Your task to perform on an android device: Open Chrome and go to settings Image 0: 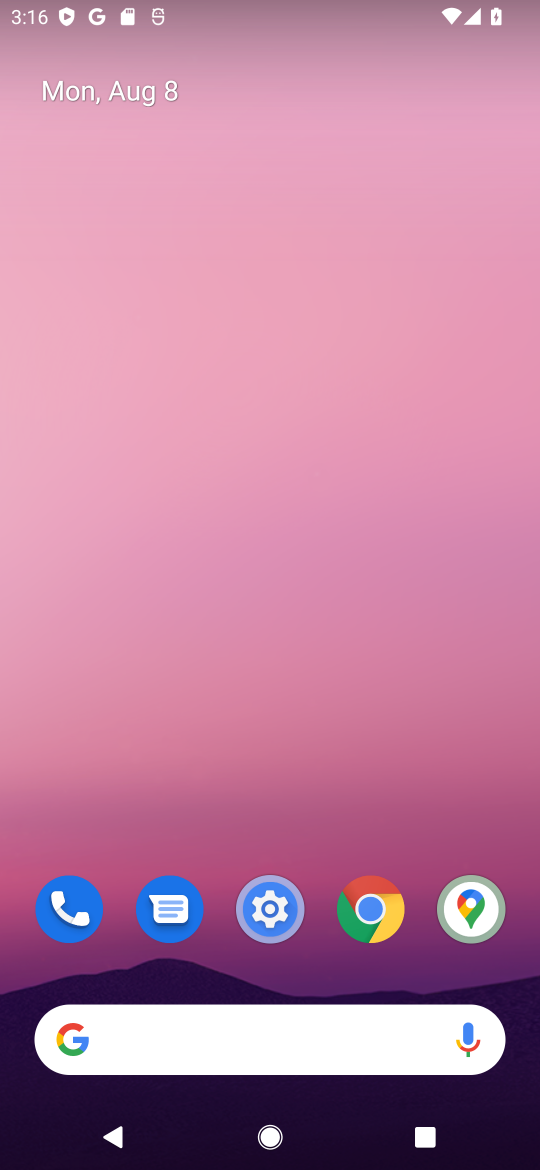
Step 0: click (369, 901)
Your task to perform on an android device: Open Chrome and go to settings Image 1: 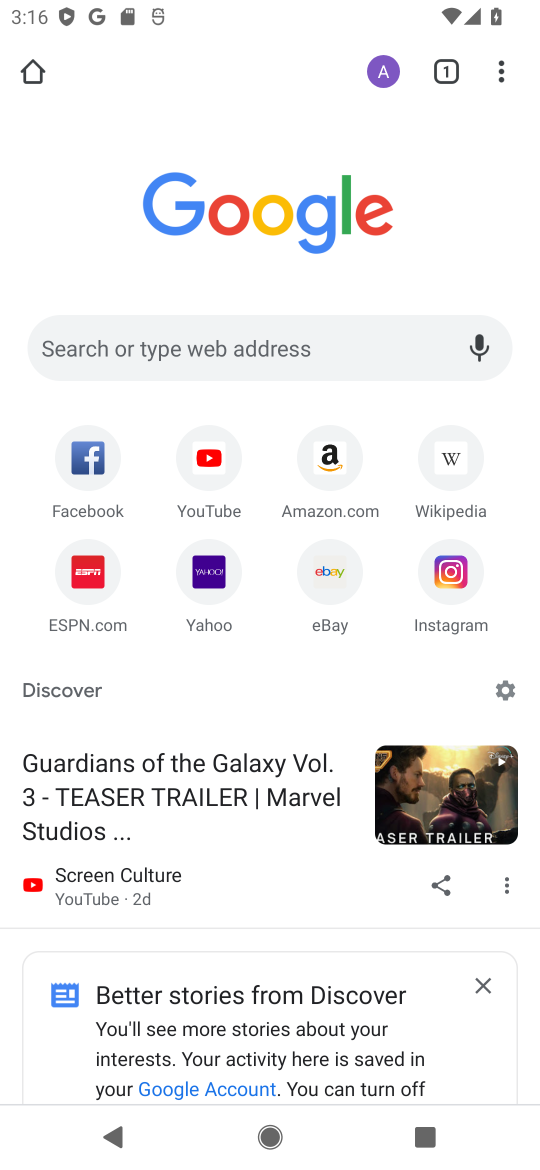
Step 1: click (494, 67)
Your task to perform on an android device: Open Chrome and go to settings Image 2: 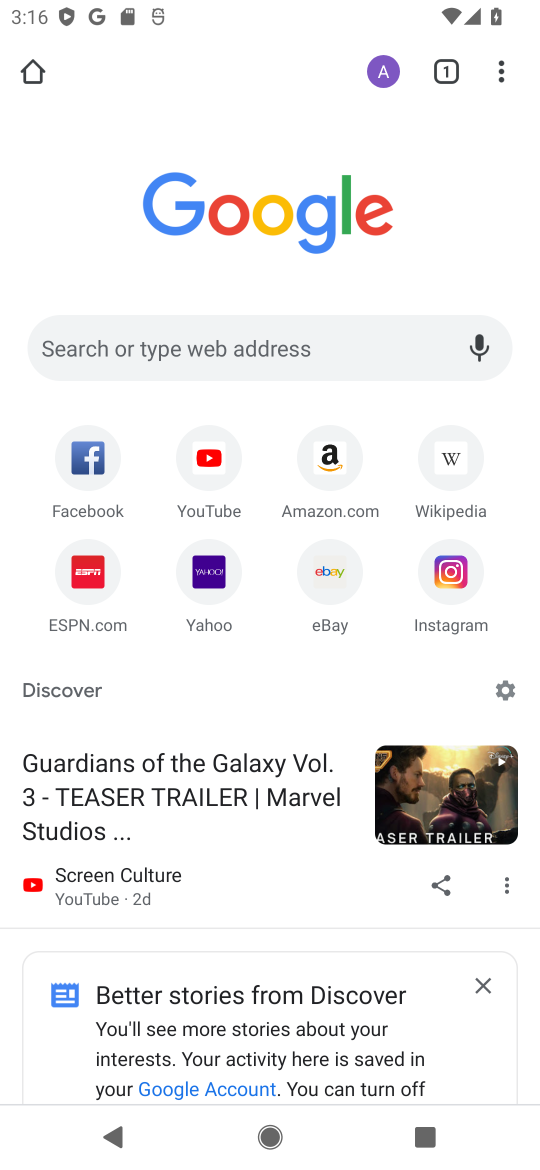
Step 2: click (499, 79)
Your task to perform on an android device: Open Chrome and go to settings Image 3: 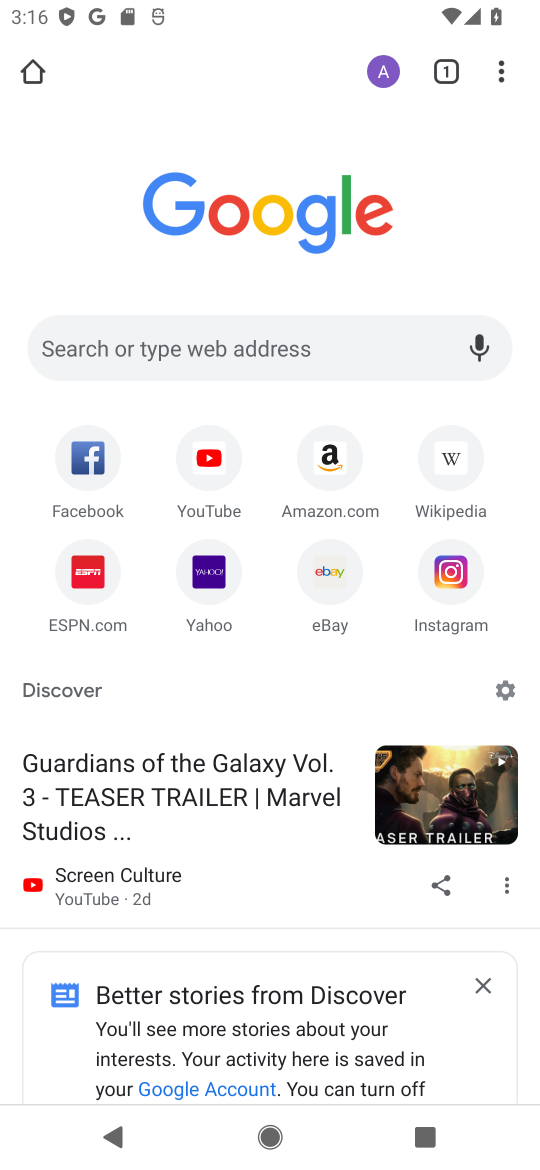
Step 3: click (510, 59)
Your task to perform on an android device: Open Chrome and go to settings Image 4: 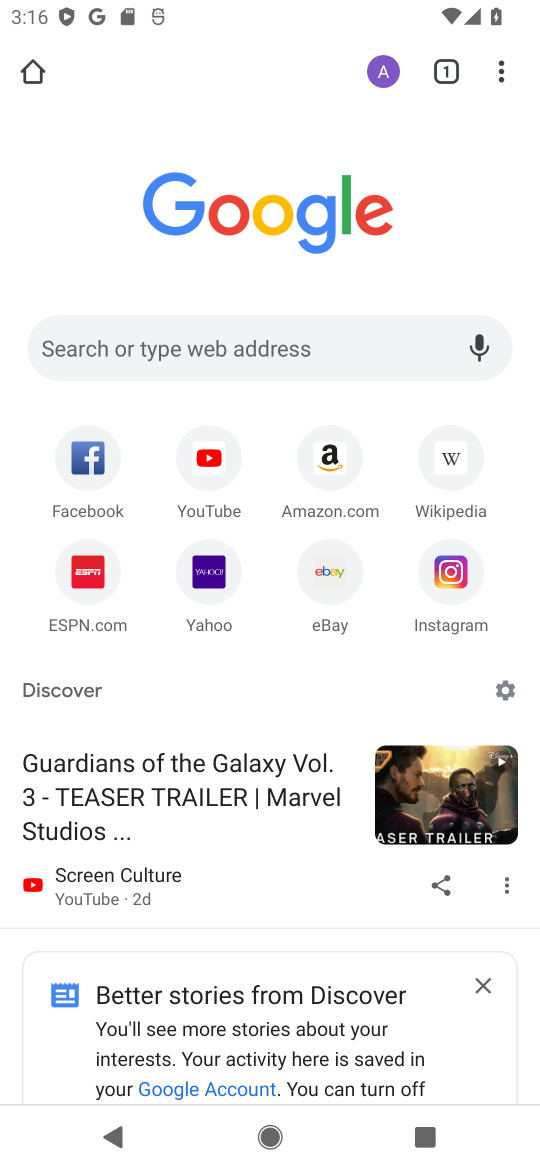
Step 4: click (511, 66)
Your task to perform on an android device: Open Chrome and go to settings Image 5: 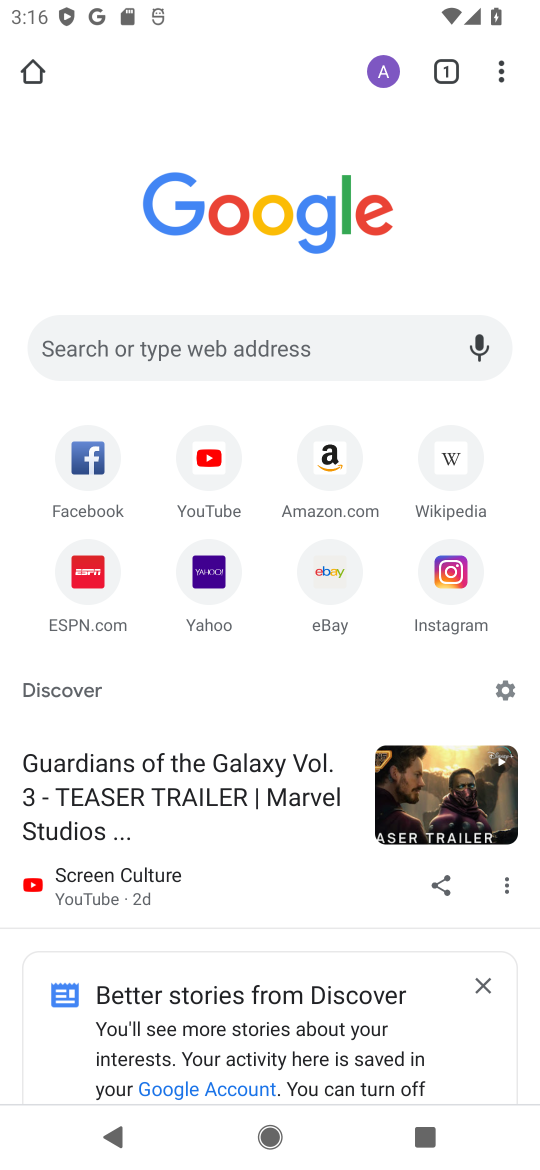
Step 5: click (500, 70)
Your task to perform on an android device: Open Chrome and go to settings Image 6: 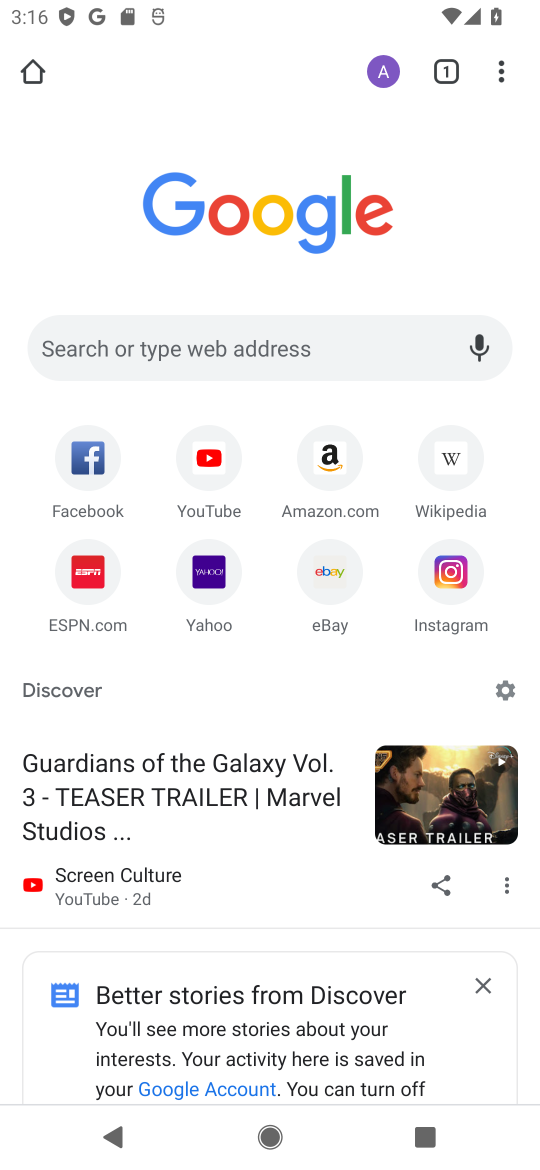
Step 6: click (500, 70)
Your task to perform on an android device: Open Chrome and go to settings Image 7: 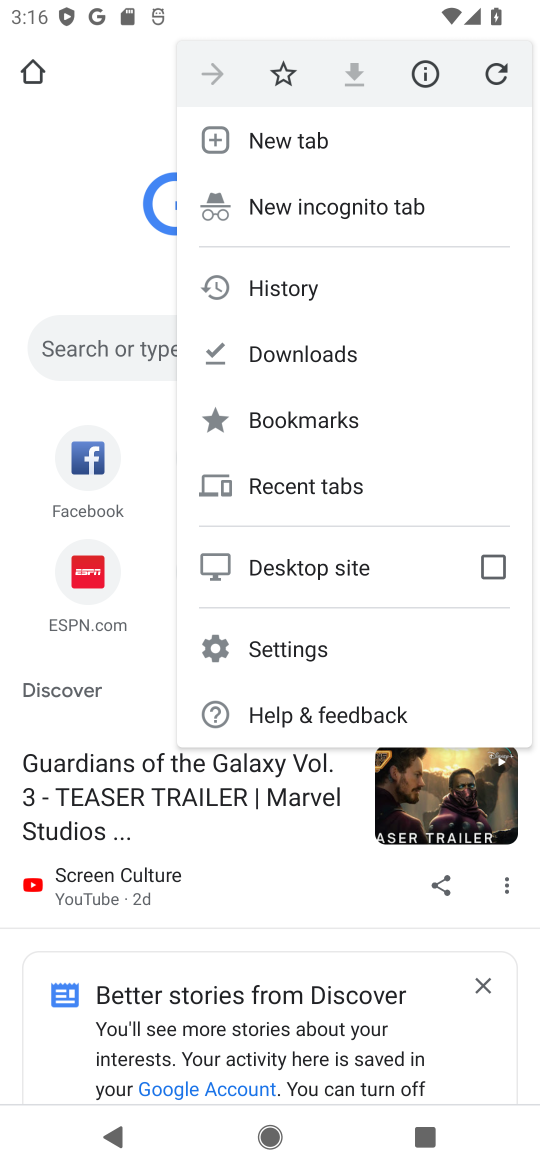
Step 7: click (299, 647)
Your task to perform on an android device: Open Chrome and go to settings Image 8: 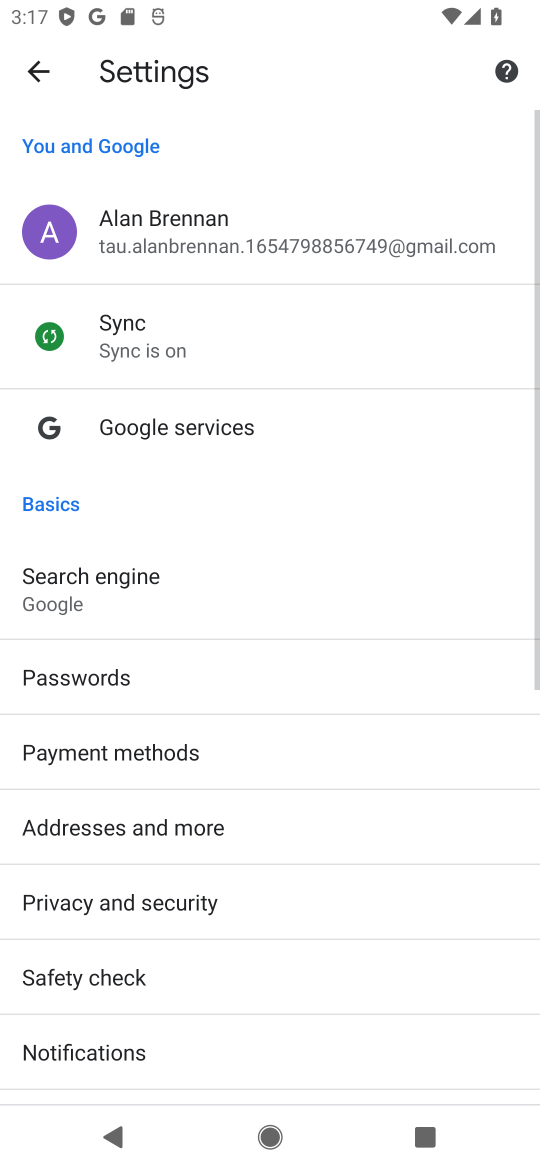
Step 8: task complete